Your task to perform on an android device: change notifications settings Image 0: 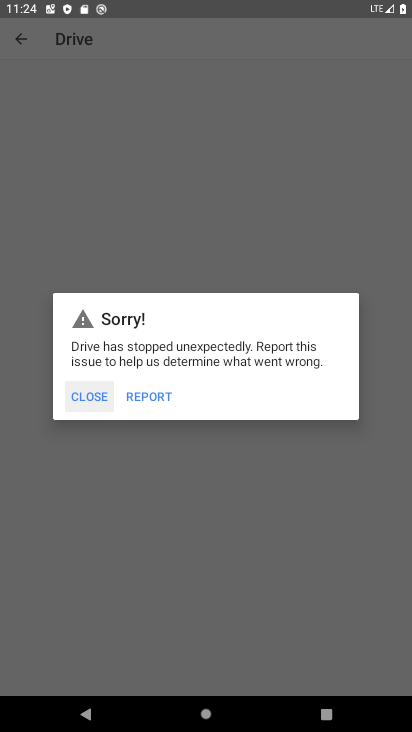
Step 0: press home button
Your task to perform on an android device: change notifications settings Image 1: 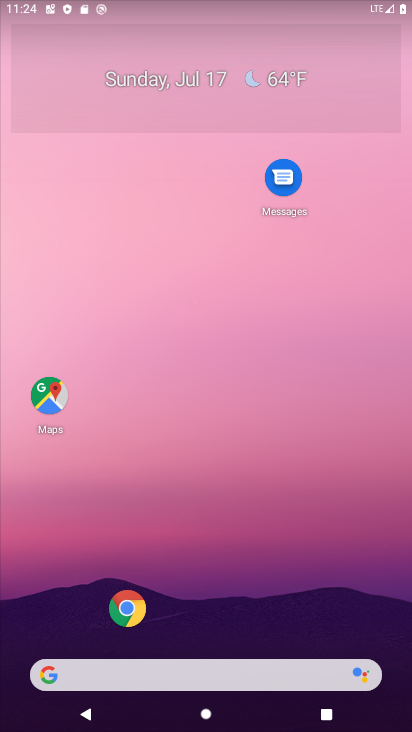
Step 1: drag from (36, 693) to (134, 202)
Your task to perform on an android device: change notifications settings Image 2: 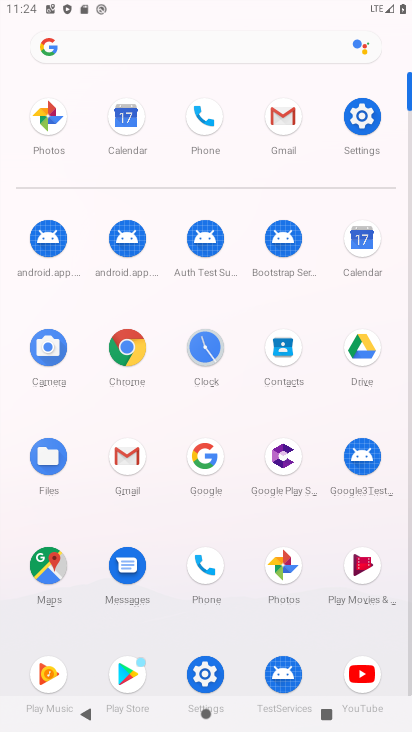
Step 2: click (210, 667)
Your task to perform on an android device: change notifications settings Image 3: 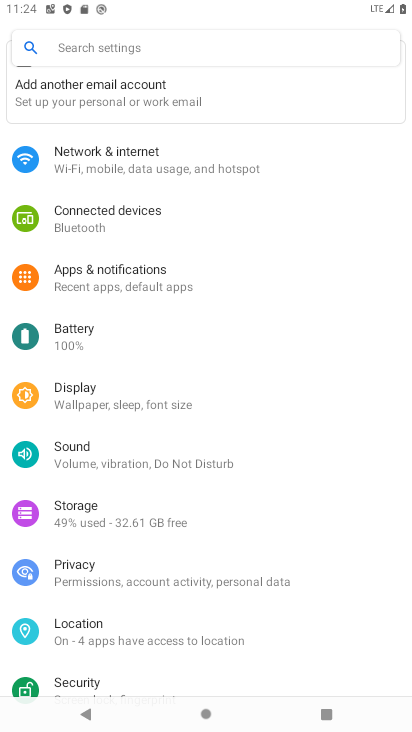
Step 3: click (116, 256)
Your task to perform on an android device: change notifications settings Image 4: 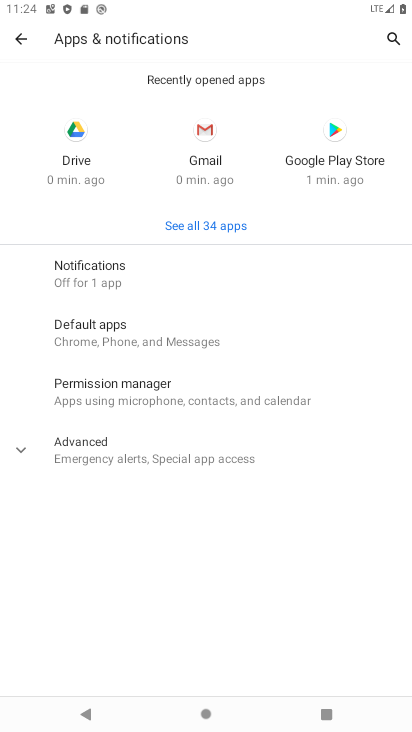
Step 4: task complete